Your task to perform on an android device: turn on showing notifications on the lock screen Image 0: 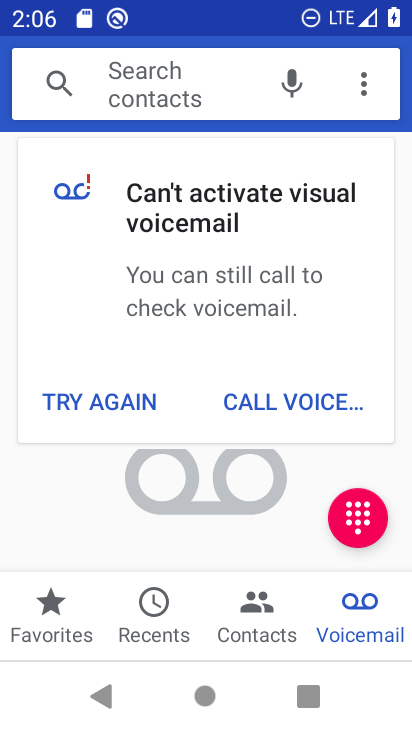
Step 0: press home button
Your task to perform on an android device: turn on showing notifications on the lock screen Image 1: 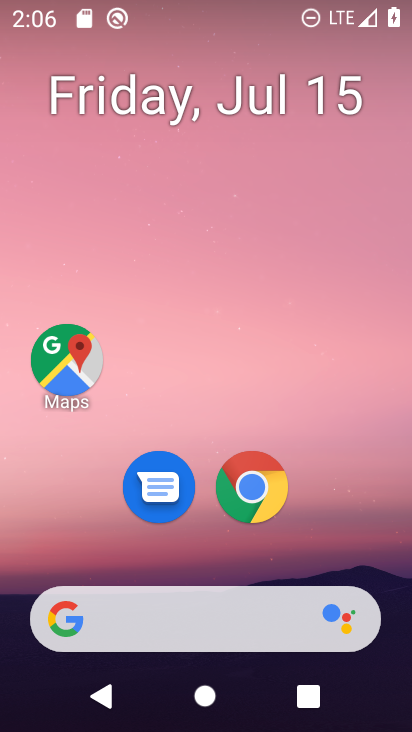
Step 1: drag from (160, 603) to (263, 81)
Your task to perform on an android device: turn on showing notifications on the lock screen Image 2: 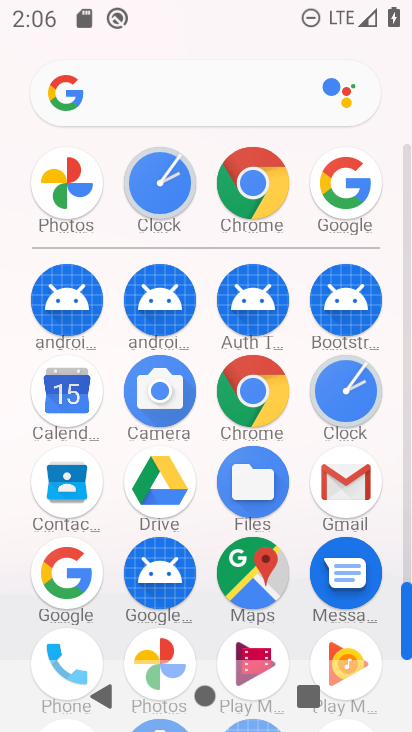
Step 2: drag from (174, 601) to (220, 272)
Your task to perform on an android device: turn on showing notifications on the lock screen Image 3: 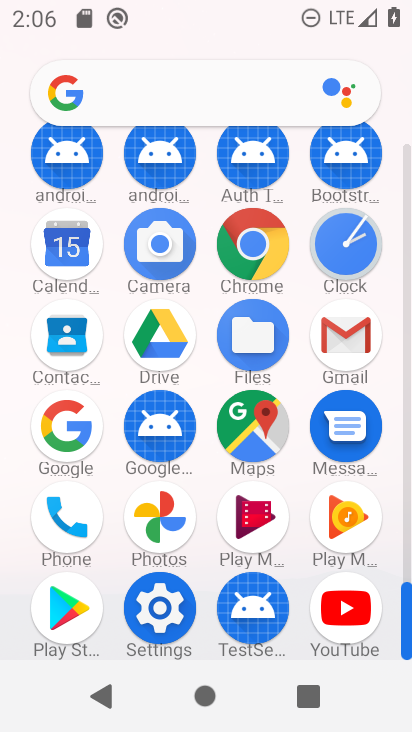
Step 3: click (151, 629)
Your task to perform on an android device: turn on showing notifications on the lock screen Image 4: 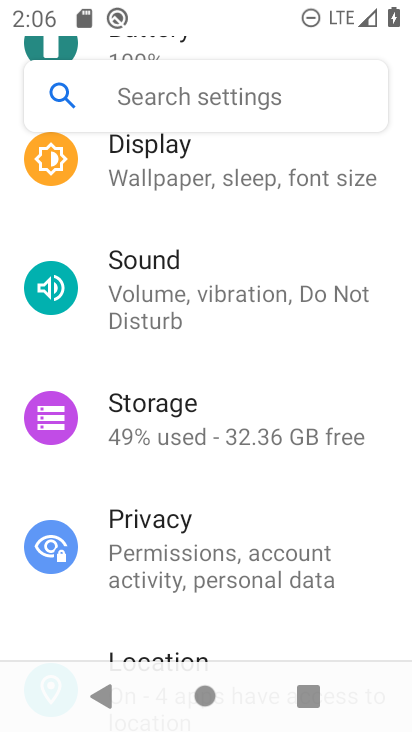
Step 4: drag from (181, 282) to (162, 607)
Your task to perform on an android device: turn on showing notifications on the lock screen Image 5: 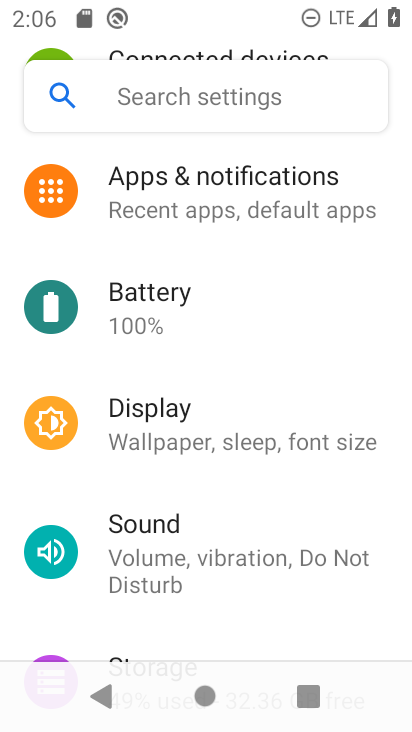
Step 5: drag from (209, 283) to (209, 589)
Your task to perform on an android device: turn on showing notifications on the lock screen Image 6: 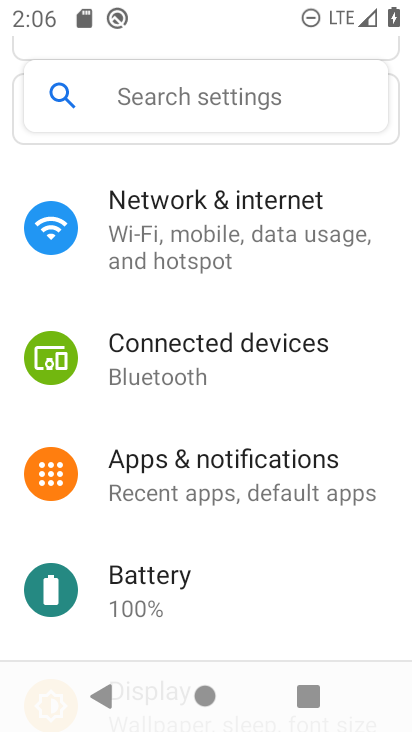
Step 6: click (259, 482)
Your task to perform on an android device: turn on showing notifications on the lock screen Image 7: 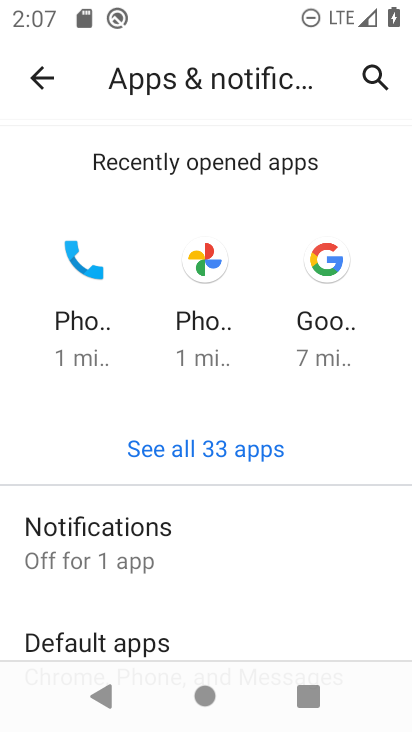
Step 7: click (182, 548)
Your task to perform on an android device: turn on showing notifications on the lock screen Image 8: 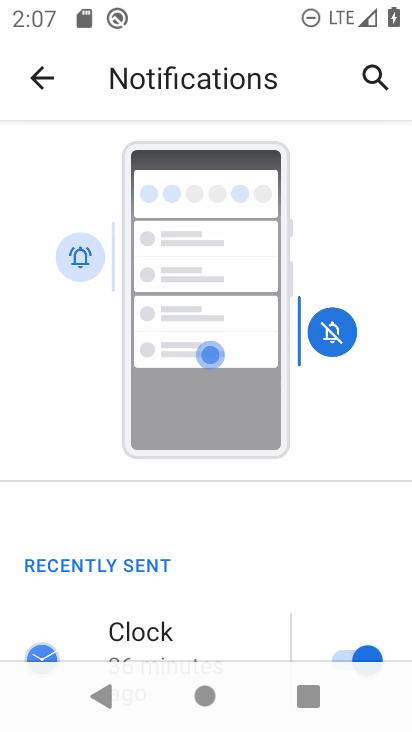
Step 8: drag from (189, 534) to (279, 25)
Your task to perform on an android device: turn on showing notifications on the lock screen Image 9: 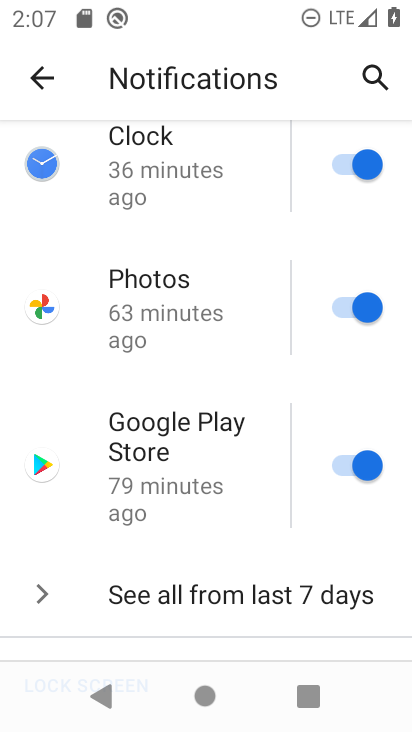
Step 9: drag from (197, 496) to (227, 0)
Your task to perform on an android device: turn on showing notifications on the lock screen Image 10: 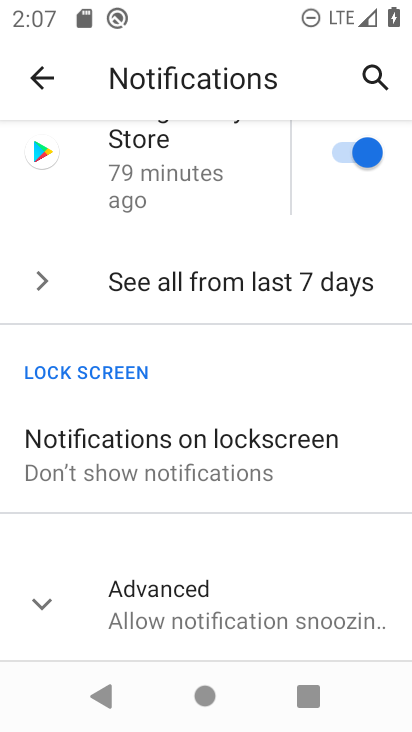
Step 10: click (163, 445)
Your task to perform on an android device: turn on showing notifications on the lock screen Image 11: 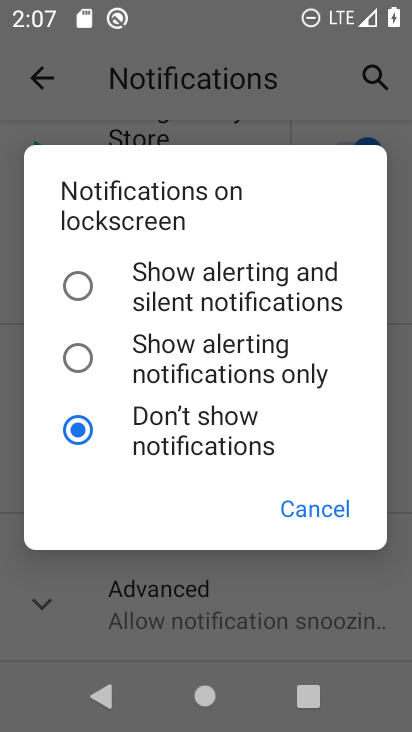
Step 11: click (86, 280)
Your task to perform on an android device: turn on showing notifications on the lock screen Image 12: 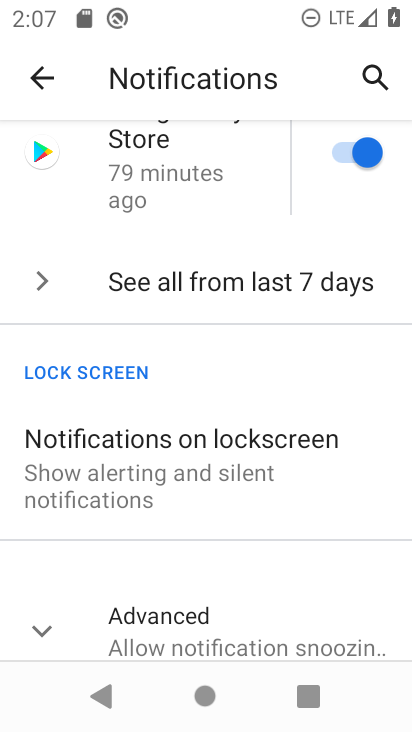
Step 12: task complete